Your task to perform on an android device: Go to Google Image 0: 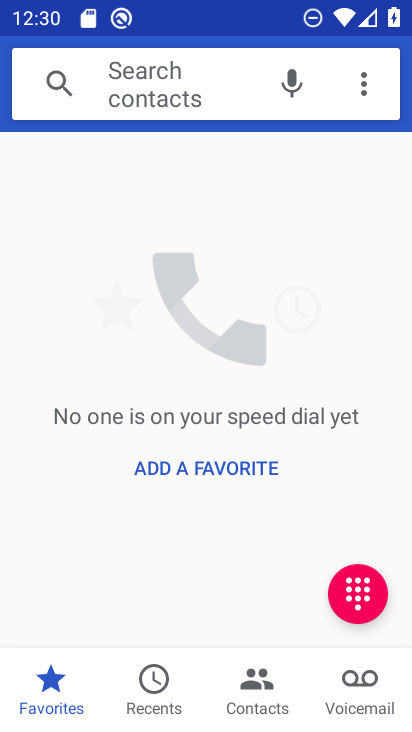
Step 0: press home button
Your task to perform on an android device: Go to Google Image 1: 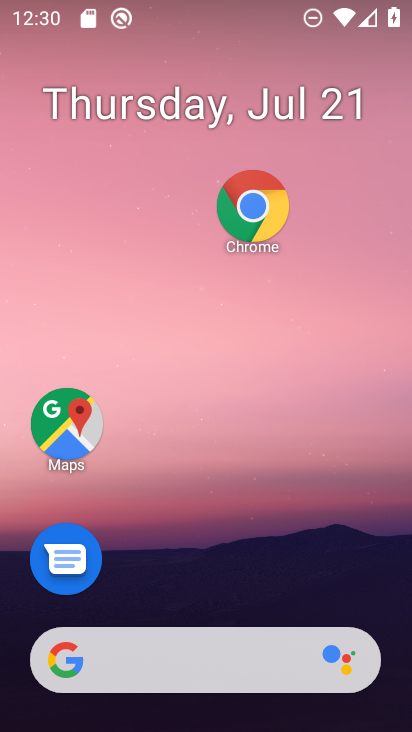
Step 1: drag from (239, 572) to (241, 26)
Your task to perform on an android device: Go to Google Image 2: 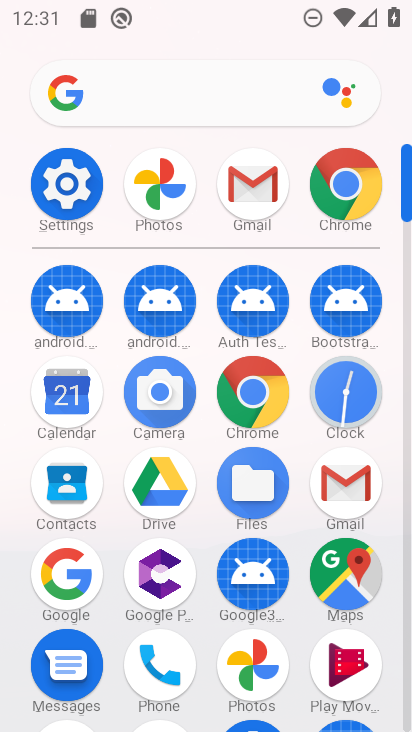
Step 2: click (70, 580)
Your task to perform on an android device: Go to Google Image 3: 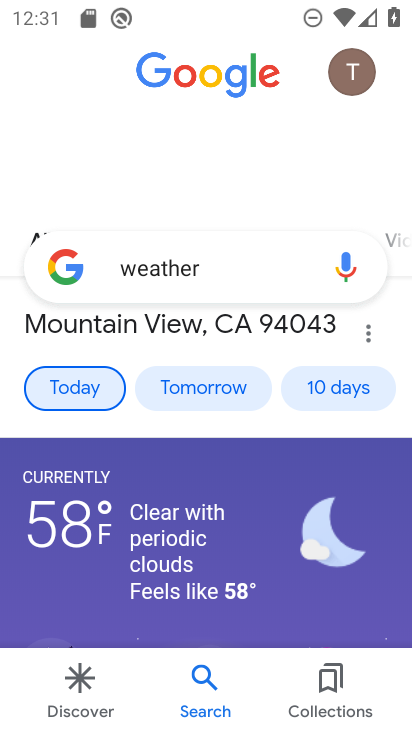
Step 3: task complete